Your task to perform on an android device: create a new album in the google photos Image 0: 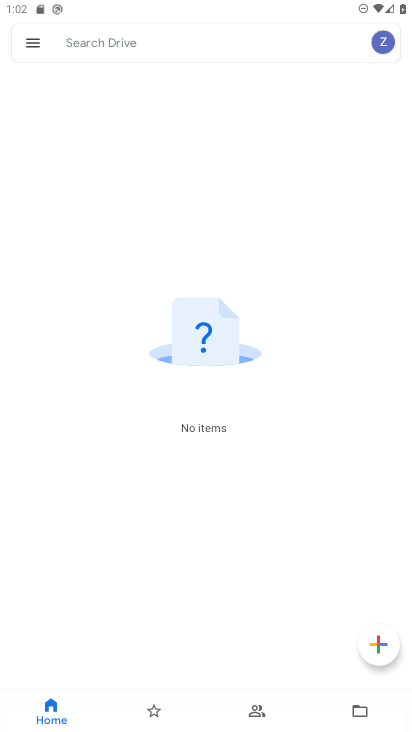
Step 0: press home button
Your task to perform on an android device: create a new album in the google photos Image 1: 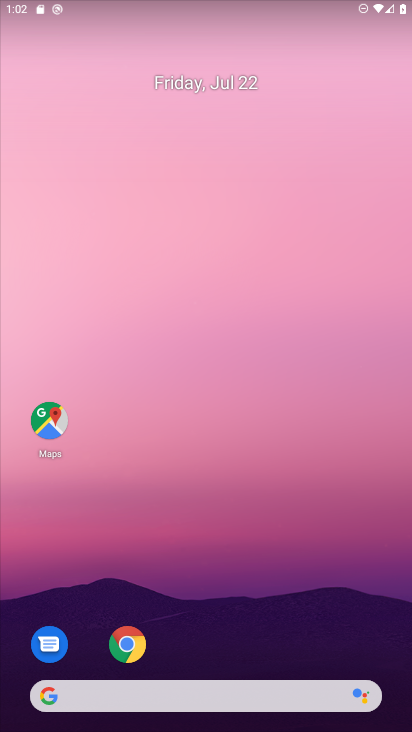
Step 1: drag from (165, 630) to (164, 2)
Your task to perform on an android device: create a new album in the google photos Image 2: 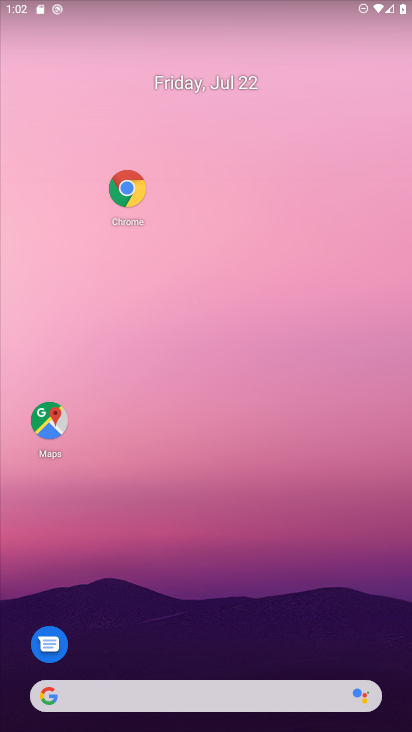
Step 2: drag from (194, 643) to (284, 73)
Your task to perform on an android device: create a new album in the google photos Image 3: 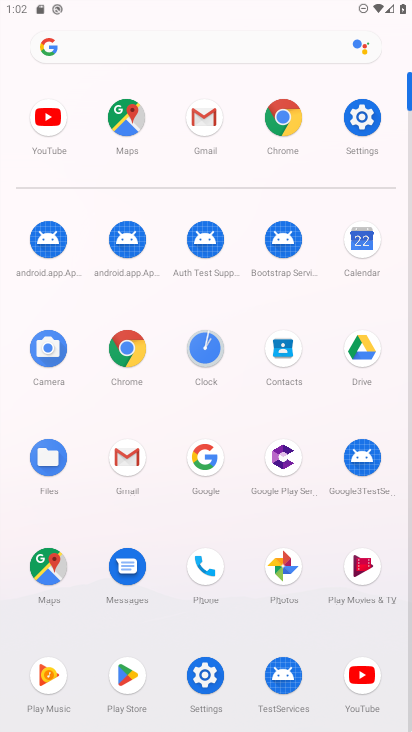
Step 3: click (278, 552)
Your task to perform on an android device: create a new album in the google photos Image 4: 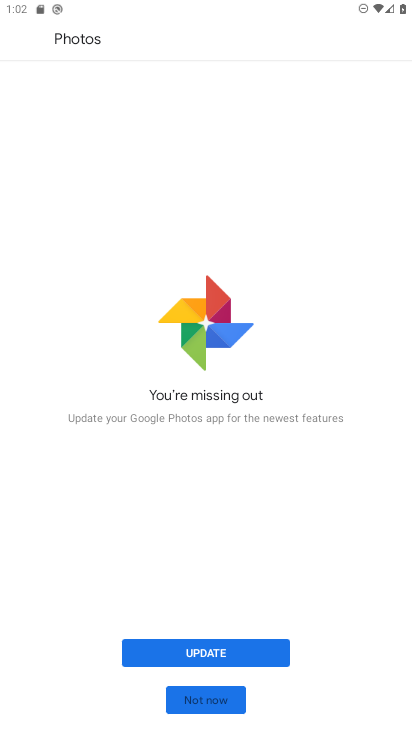
Step 4: click (206, 699)
Your task to perform on an android device: create a new album in the google photos Image 5: 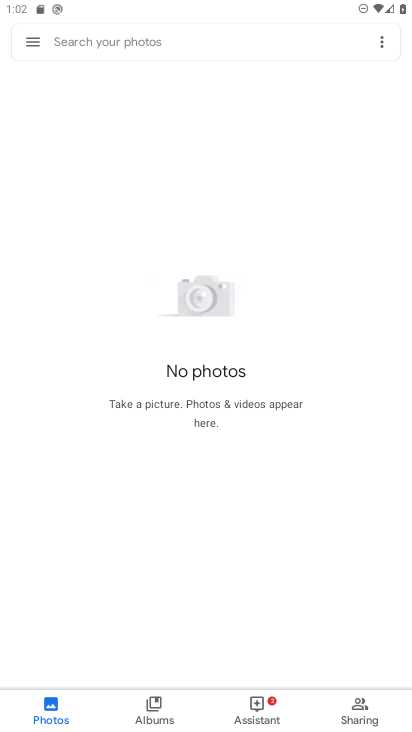
Step 5: task complete